Your task to perform on an android device: add a contact Image 0: 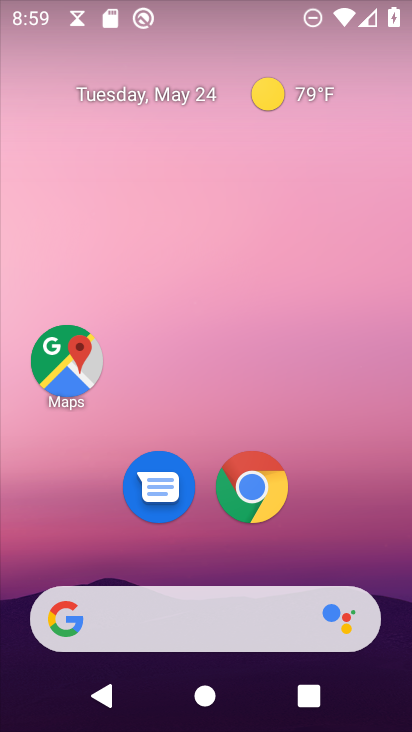
Step 0: drag from (72, 492) to (298, 113)
Your task to perform on an android device: add a contact Image 1: 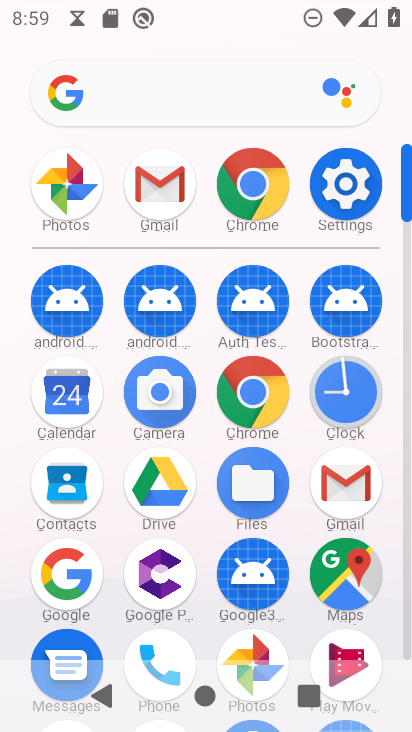
Step 1: click (145, 640)
Your task to perform on an android device: add a contact Image 2: 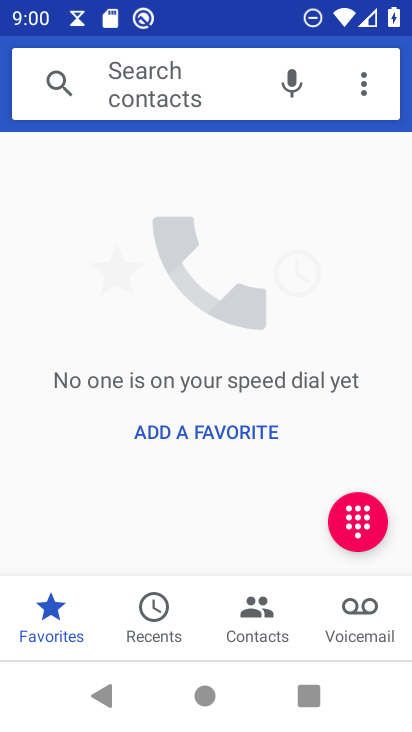
Step 2: click (254, 613)
Your task to perform on an android device: add a contact Image 3: 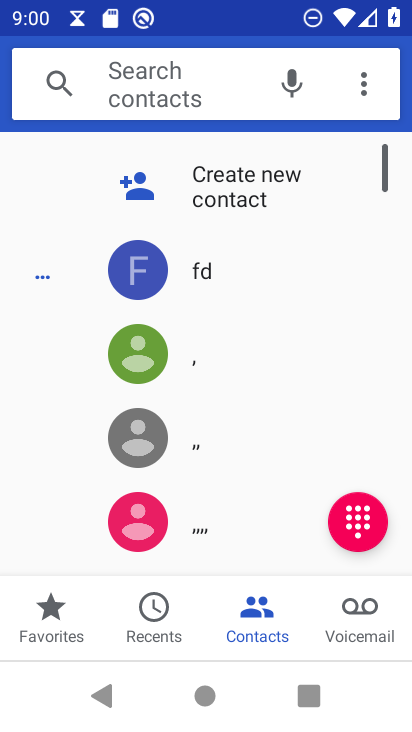
Step 3: click (220, 170)
Your task to perform on an android device: add a contact Image 4: 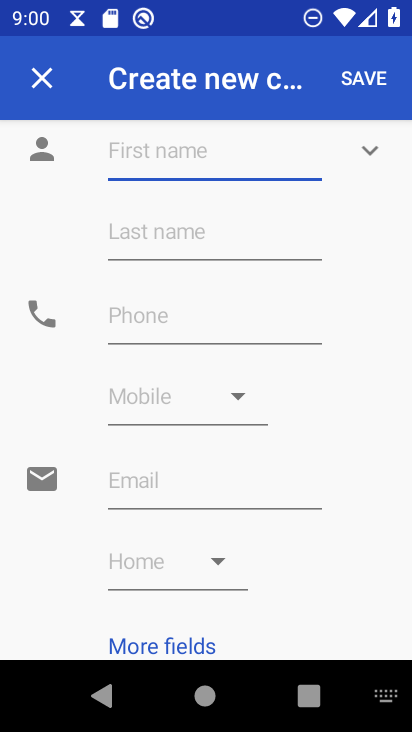
Step 4: click (197, 150)
Your task to perform on an android device: add a contact Image 5: 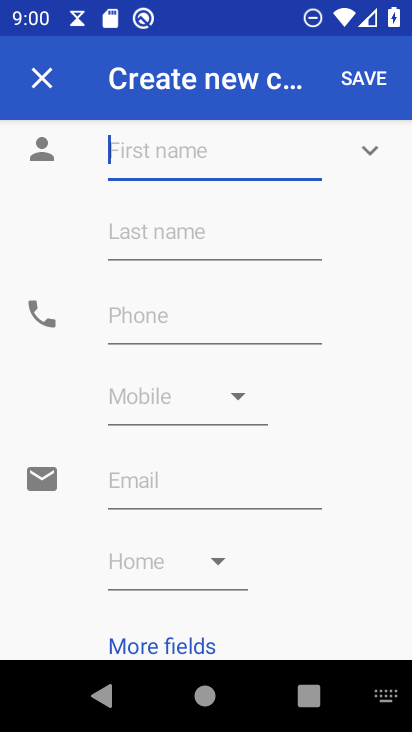
Step 5: type "dgdgdg"
Your task to perform on an android device: add a contact Image 6: 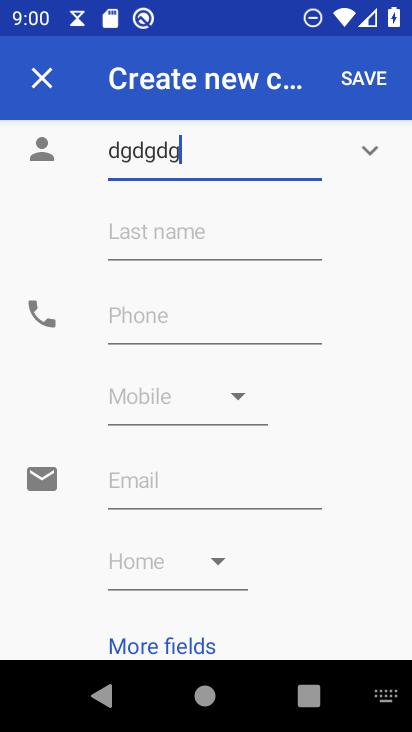
Step 6: type ""
Your task to perform on an android device: add a contact Image 7: 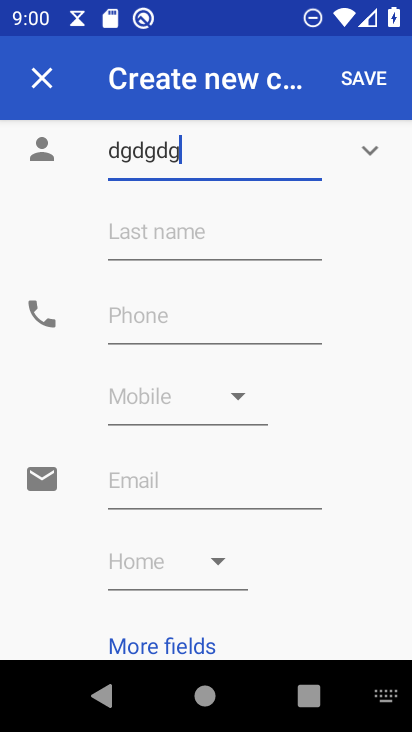
Step 7: click (380, 76)
Your task to perform on an android device: add a contact Image 8: 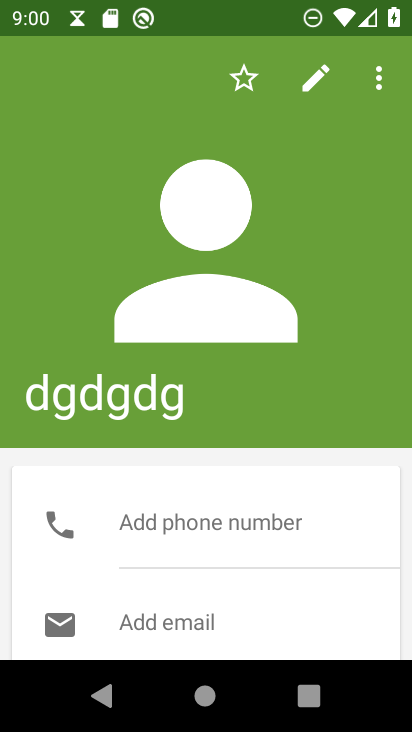
Step 8: task complete